Your task to perform on an android device: set an alarm Image 0: 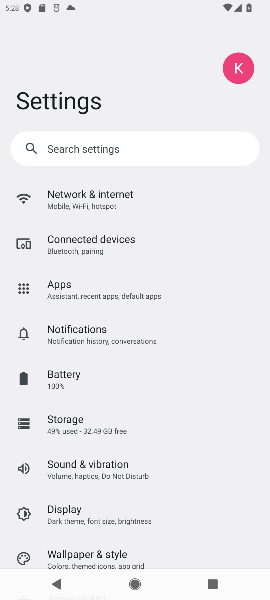
Step 0: press home button
Your task to perform on an android device: set an alarm Image 1: 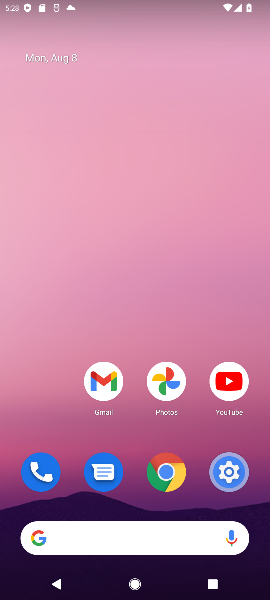
Step 1: drag from (135, 517) to (131, 72)
Your task to perform on an android device: set an alarm Image 2: 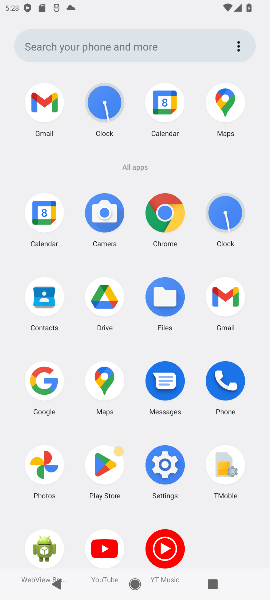
Step 2: click (98, 102)
Your task to perform on an android device: set an alarm Image 3: 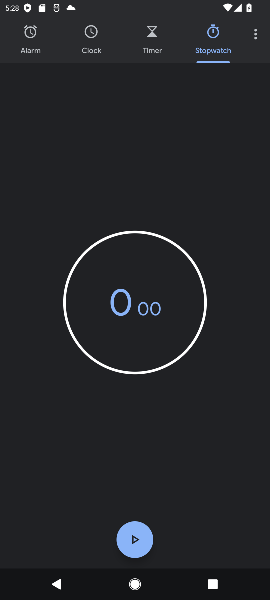
Step 3: click (37, 42)
Your task to perform on an android device: set an alarm Image 4: 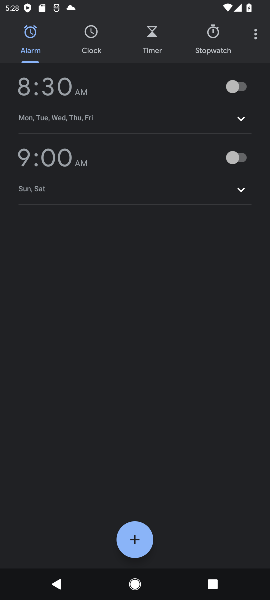
Step 4: click (229, 92)
Your task to perform on an android device: set an alarm Image 5: 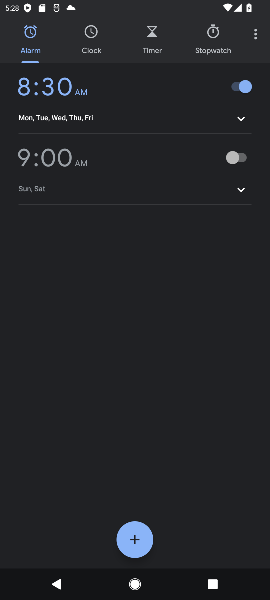
Step 5: task complete